Your task to perform on an android device: Search for sushi restaurants on Maps Image 0: 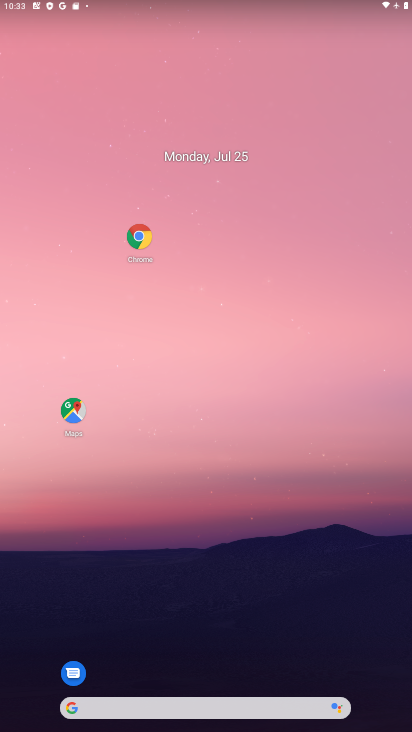
Step 0: click (83, 429)
Your task to perform on an android device: Search for sushi restaurants on Maps Image 1: 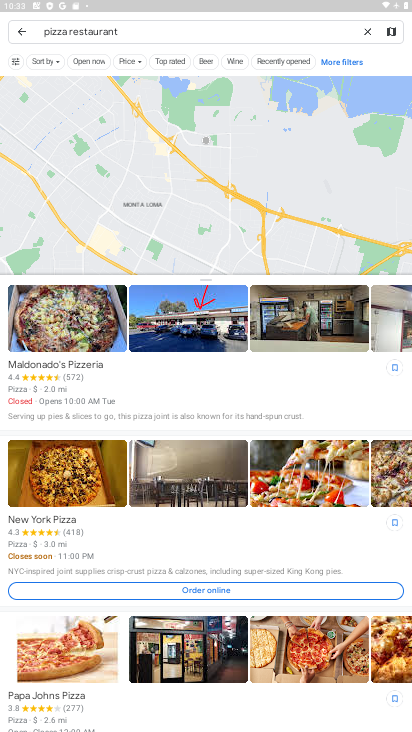
Step 1: click (362, 33)
Your task to perform on an android device: Search for sushi restaurants on Maps Image 2: 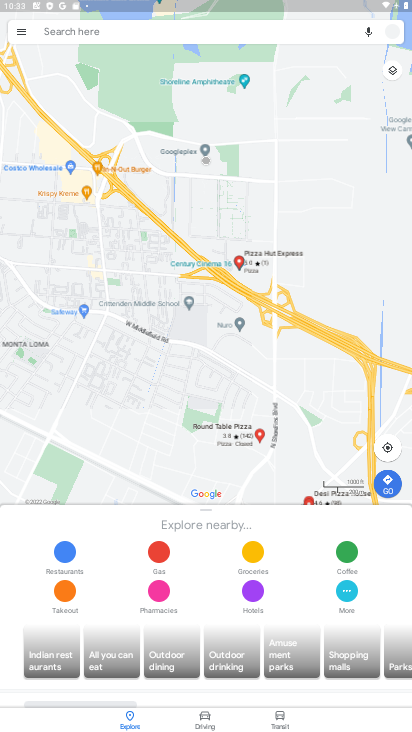
Step 2: click (280, 28)
Your task to perform on an android device: Search for sushi restaurants on Maps Image 3: 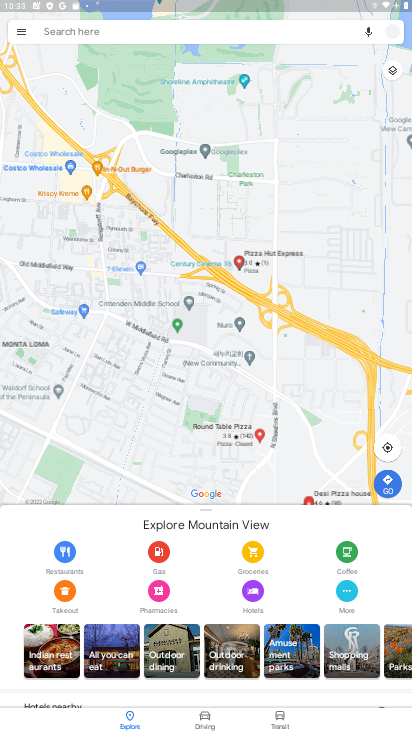
Step 3: click (291, 32)
Your task to perform on an android device: Search for sushi restaurants on Maps Image 4: 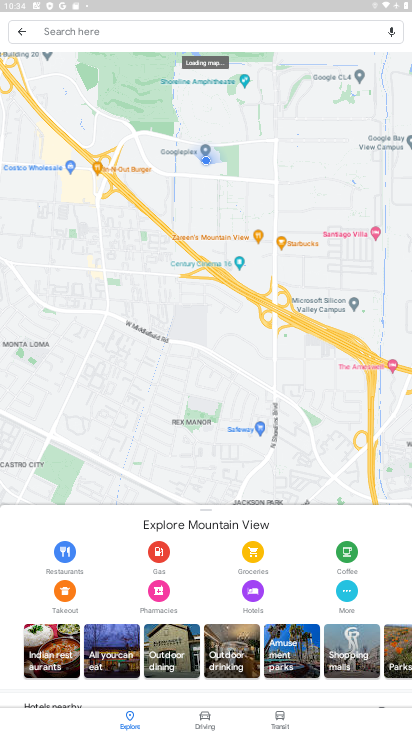
Step 4: click (240, 32)
Your task to perform on an android device: Search for sushi restaurants on Maps Image 5: 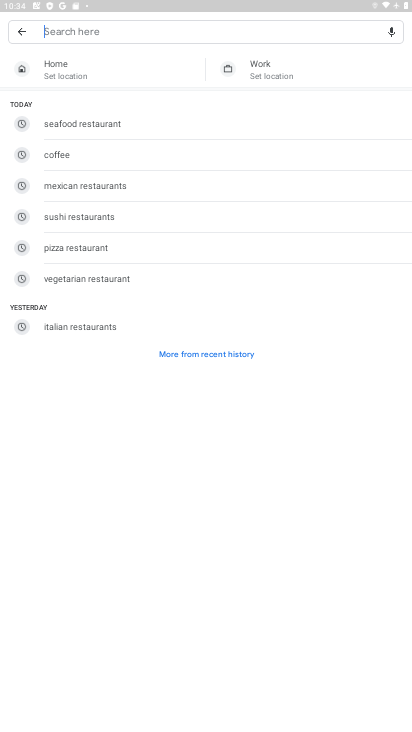
Step 5: click (240, 32)
Your task to perform on an android device: Search for sushi restaurants on Maps Image 6: 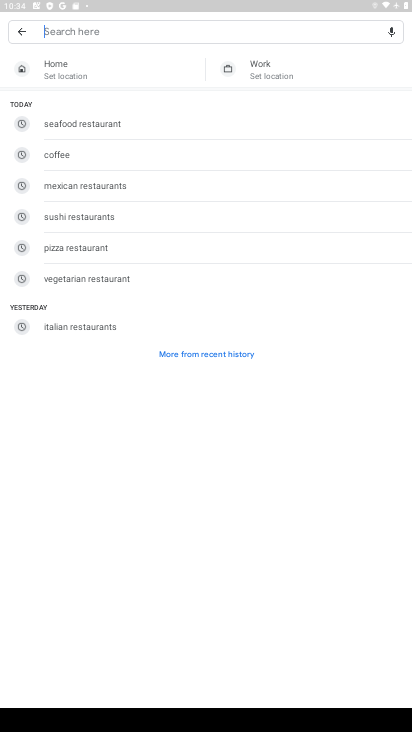
Step 6: click (112, 222)
Your task to perform on an android device: Search for sushi restaurants on Maps Image 7: 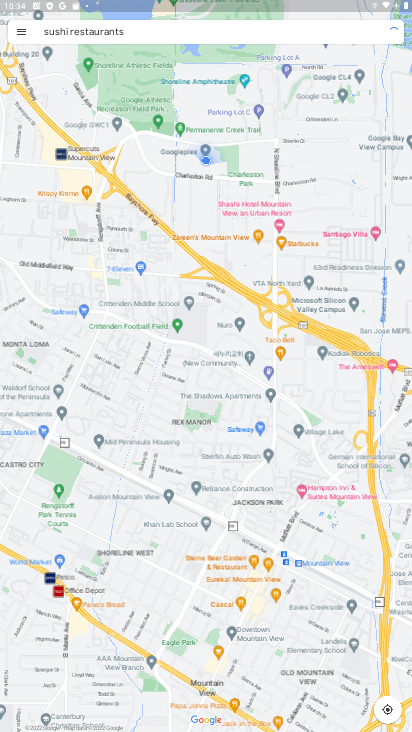
Step 7: task complete